Your task to perform on an android device: Open notification settings Image 0: 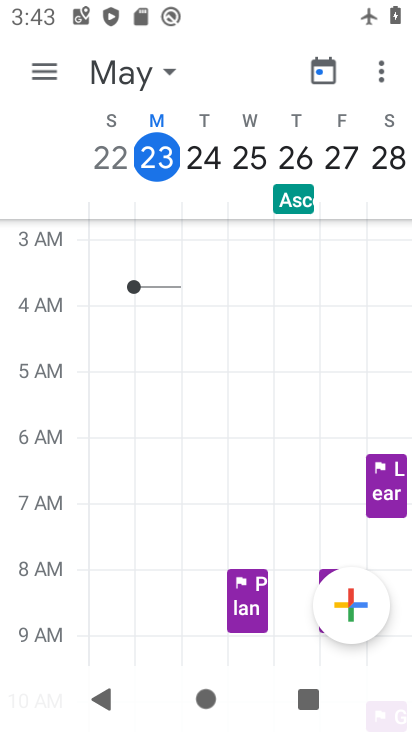
Step 0: press home button
Your task to perform on an android device: Open notification settings Image 1: 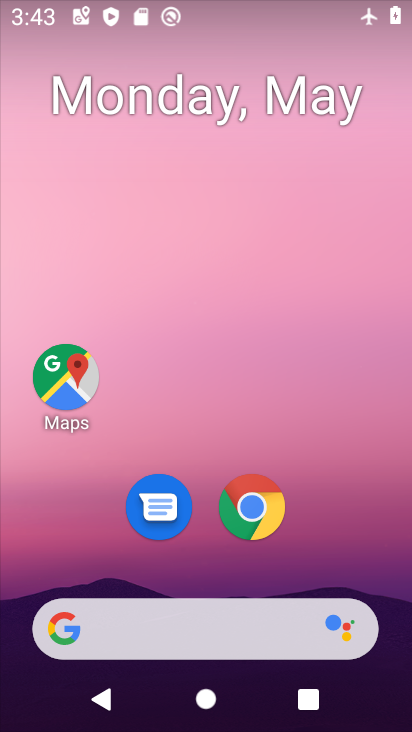
Step 1: drag from (201, 573) to (224, 19)
Your task to perform on an android device: Open notification settings Image 2: 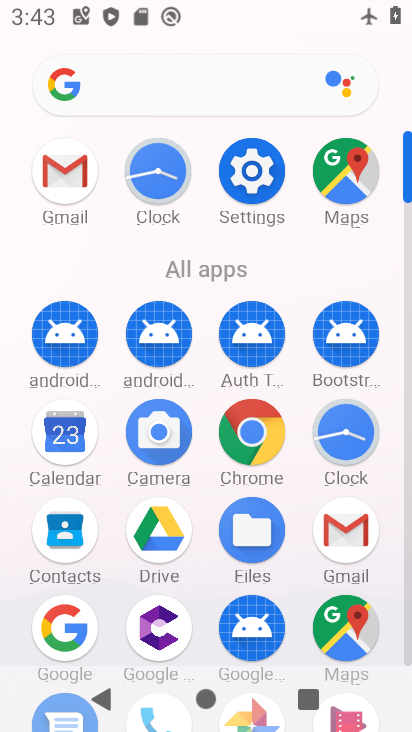
Step 2: click (257, 149)
Your task to perform on an android device: Open notification settings Image 3: 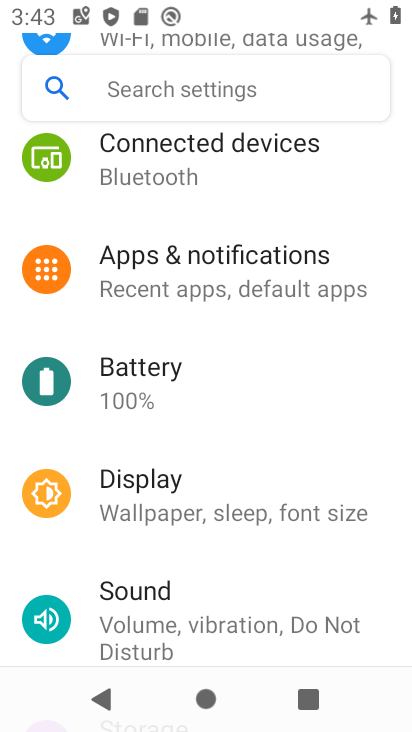
Step 3: click (144, 279)
Your task to perform on an android device: Open notification settings Image 4: 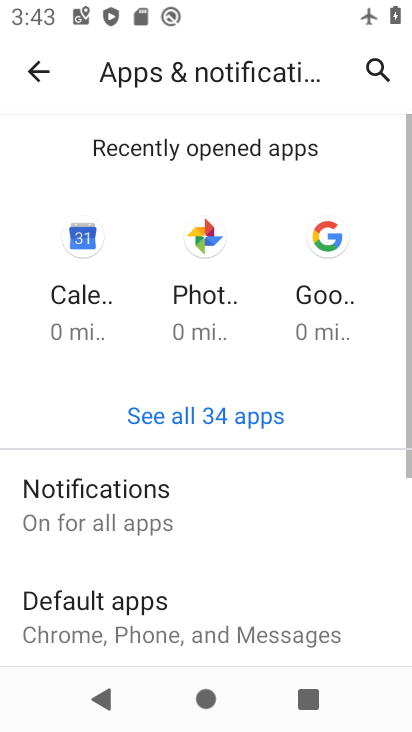
Step 4: task complete